Your task to perform on an android device: Go to eBay Image 0: 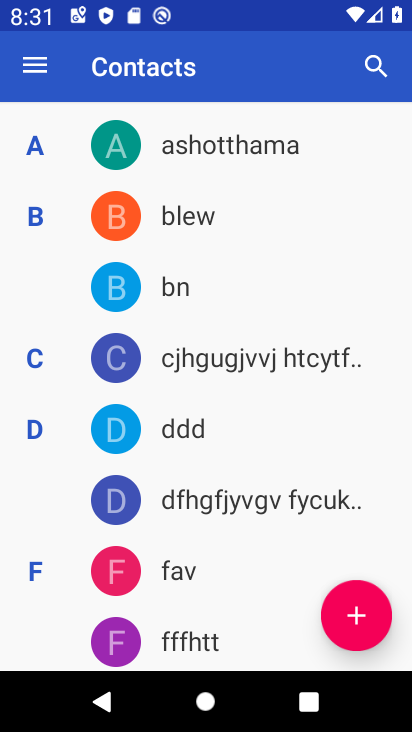
Step 0: press home button
Your task to perform on an android device: Go to eBay Image 1: 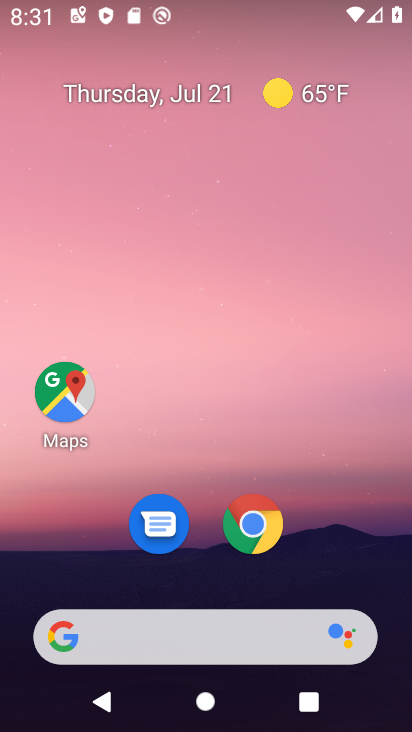
Step 1: click (261, 525)
Your task to perform on an android device: Go to eBay Image 2: 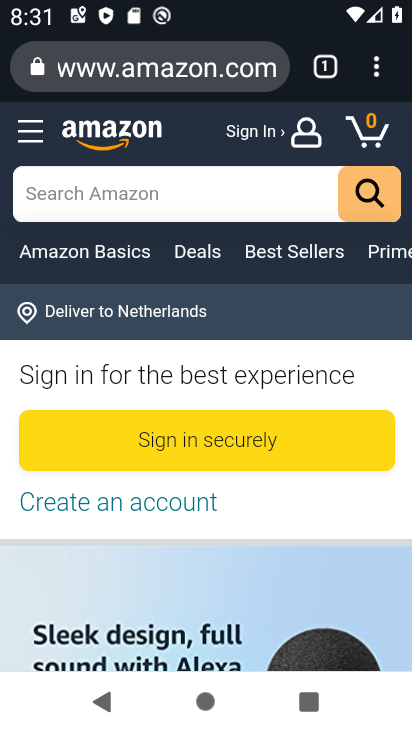
Step 2: click (244, 58)
Your task to perform on an android device: Go to eBay Image 3: 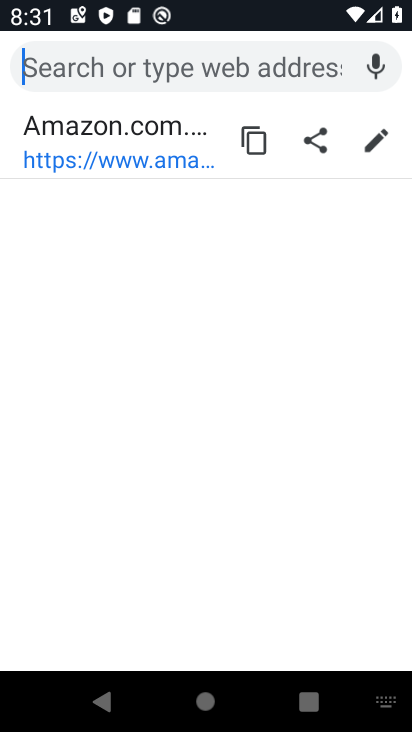
Step 3: type "ebay"
Your task to perform on an android device: Go to eBay Image 4: 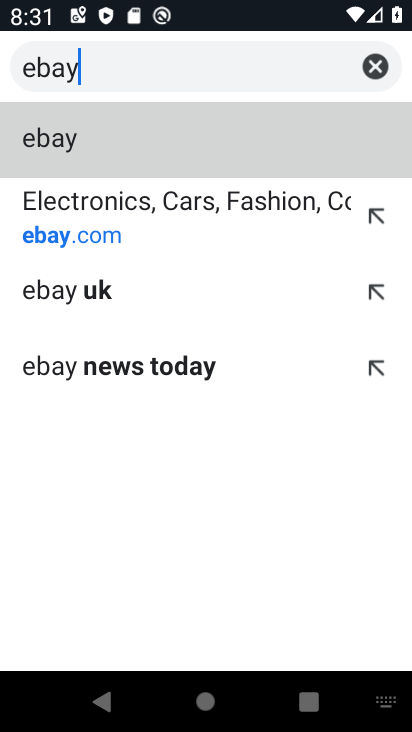
Step 4: click (166, 218)
Your task to perform on an android device: Go to eBay Image 5: 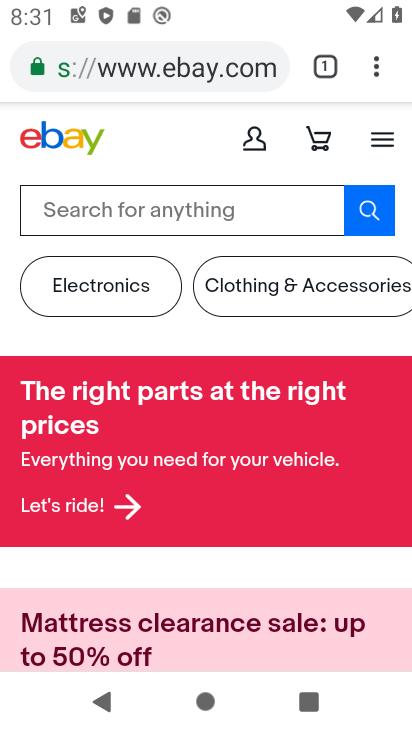
Step 5: task complete